Your task to perform on an android device: open app "Google Keep" Image 0: 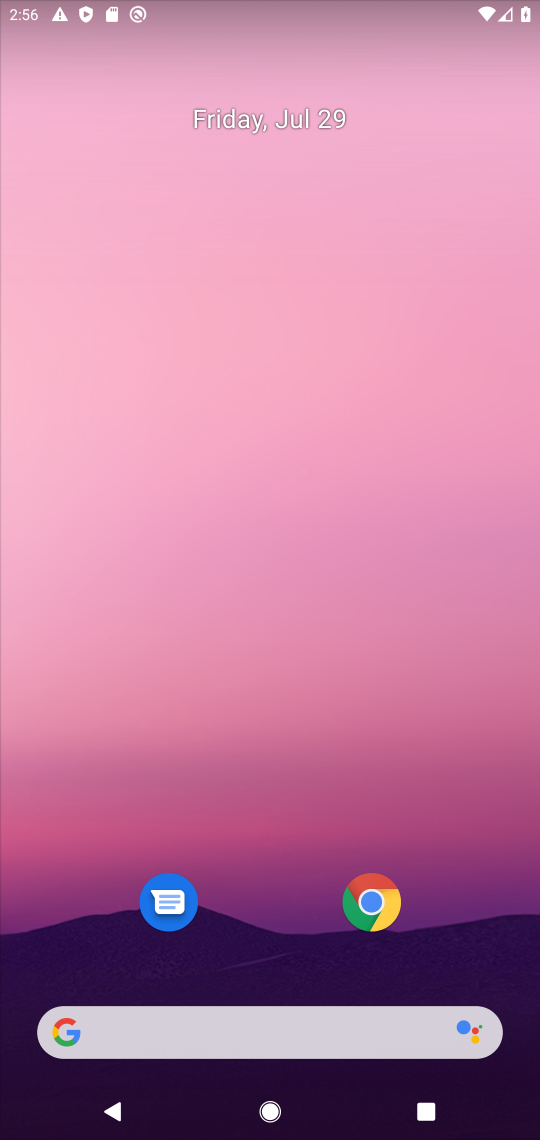
Step 0: drag from (347, 552) to (275, 250)
Your task to perform on an android device: open app "Google Keep" Image 1: 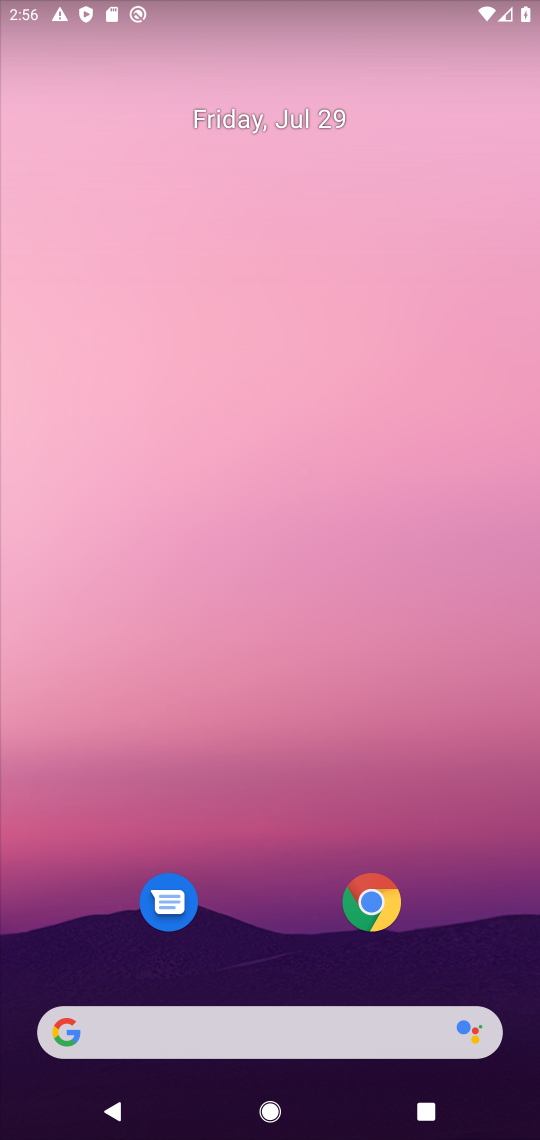
Step 1: drag from (209, 391) to (164, 230)
Your task to perform on an android device: open app "Google Keep" Image 2: 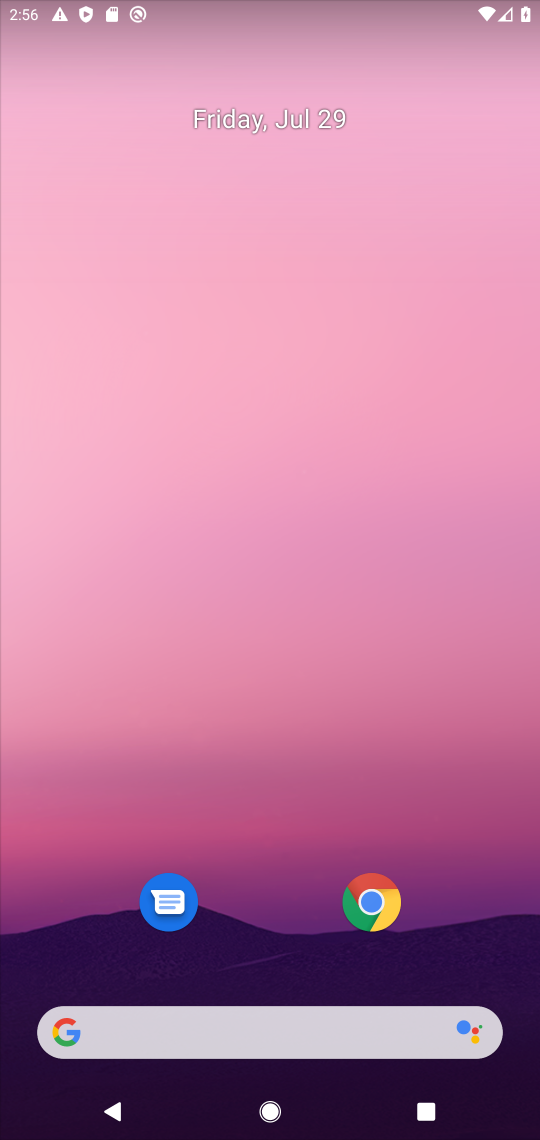
Step 2: drag from (242, 871) to (250, 355)
Your task to perform on an android device: open app "Google Keep" Image 3: 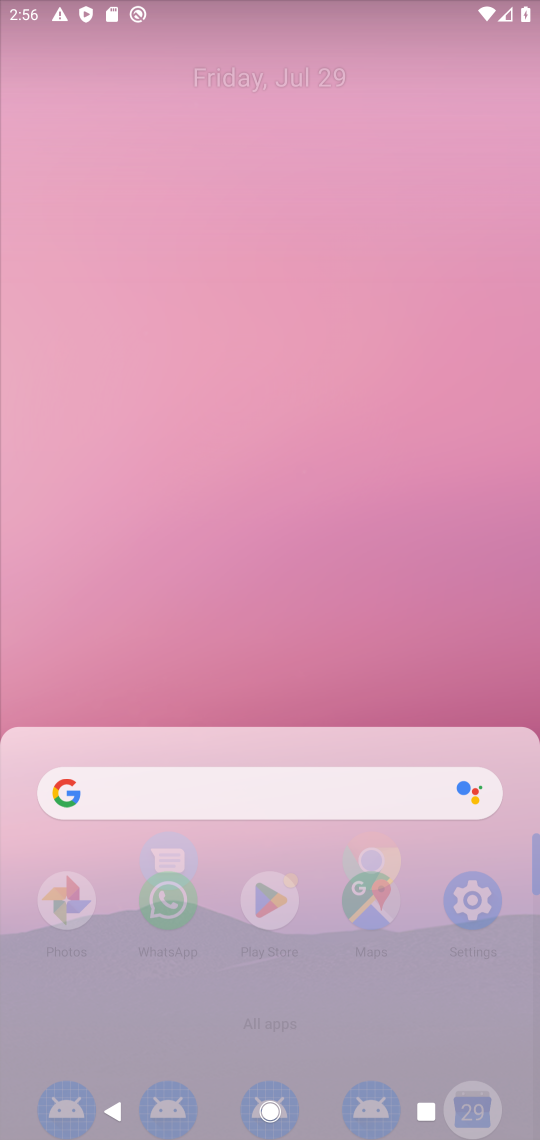
Step 3: drag from (348, 868) to (184, 83)
Your task to perform on an android device: open app "Google Keep" Image 4: 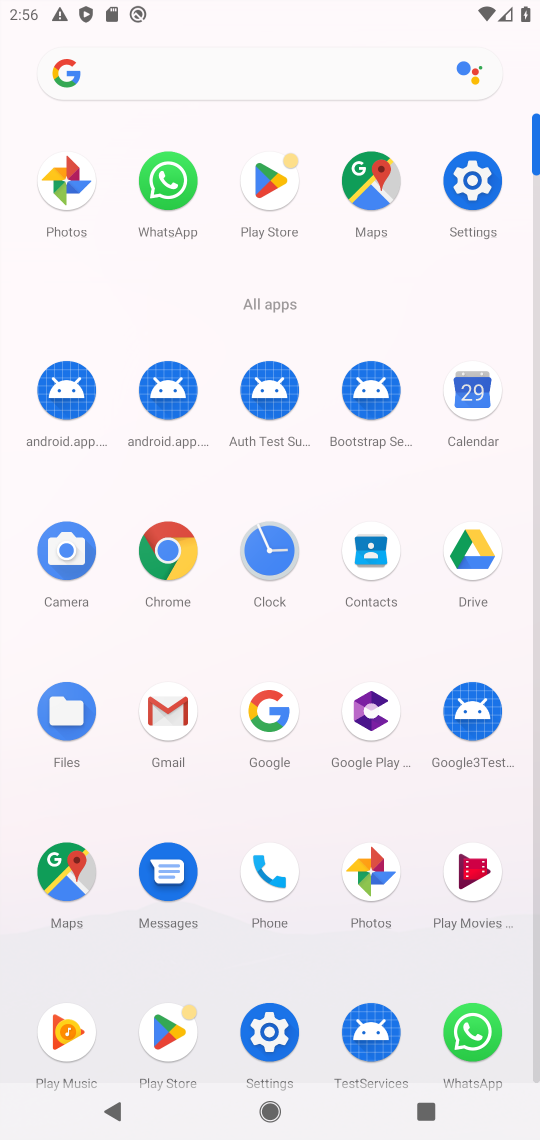
Step 4: drag from (250, 454) to (213, 211)
Your task to perform on an android device: open app "Google Keep" Image 5: 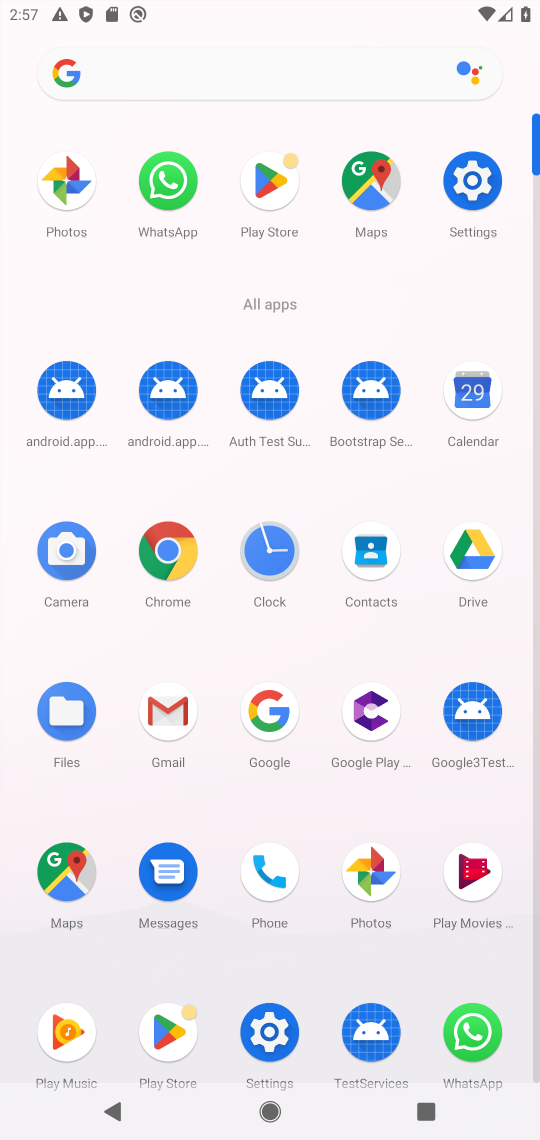
Step 5: click (180, 1018)
Your task to perform on an android device: open app "Google Keep" Image 6: 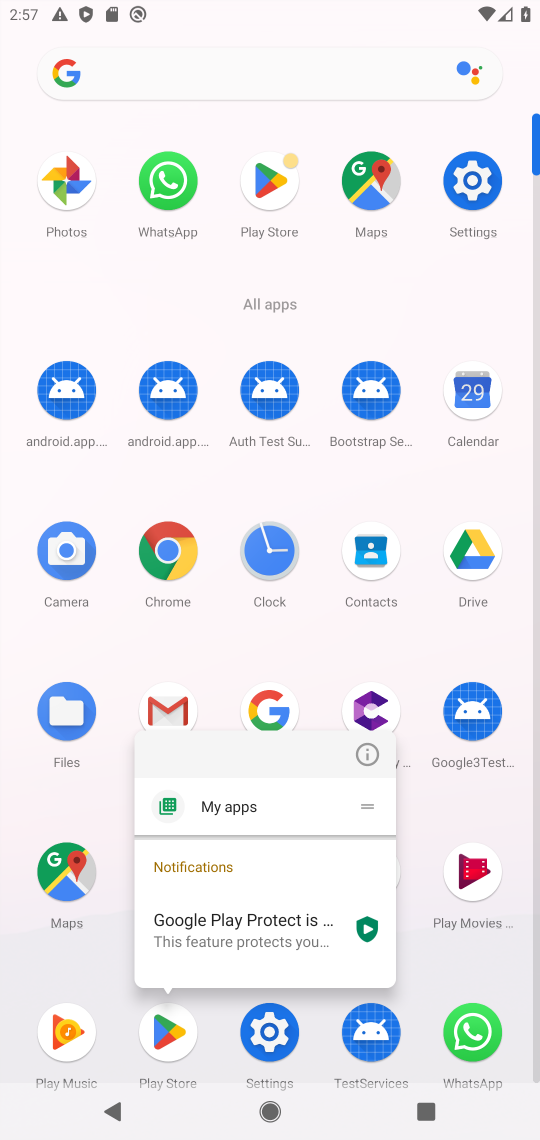
Step 6: click (165, 1047)
Your task to perform on an android device: open app "Google Keep" Image 7: 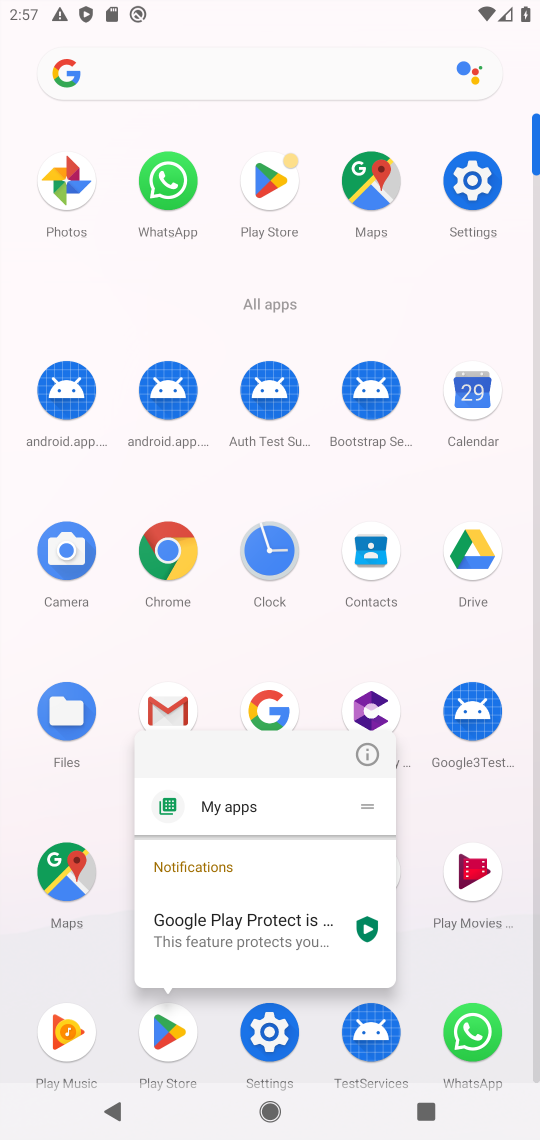
Step 7: click (162, 1047)
Your task to perform on an android device: open app "Google Keep" Image 8: 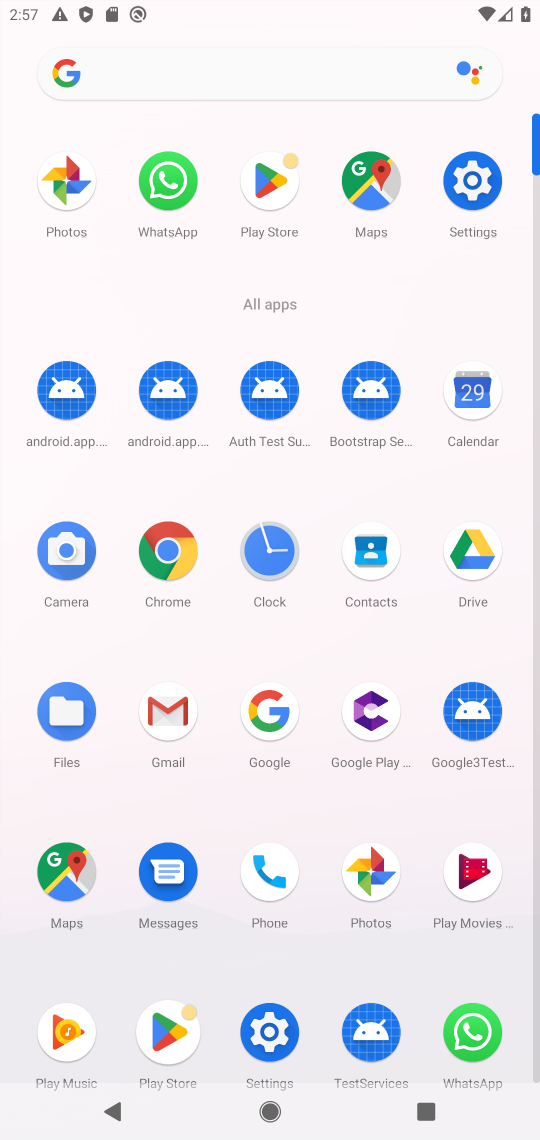
Step 8: click (161, 1044)
Your task to perform on an android device: open app "Google Keep" Image 9: 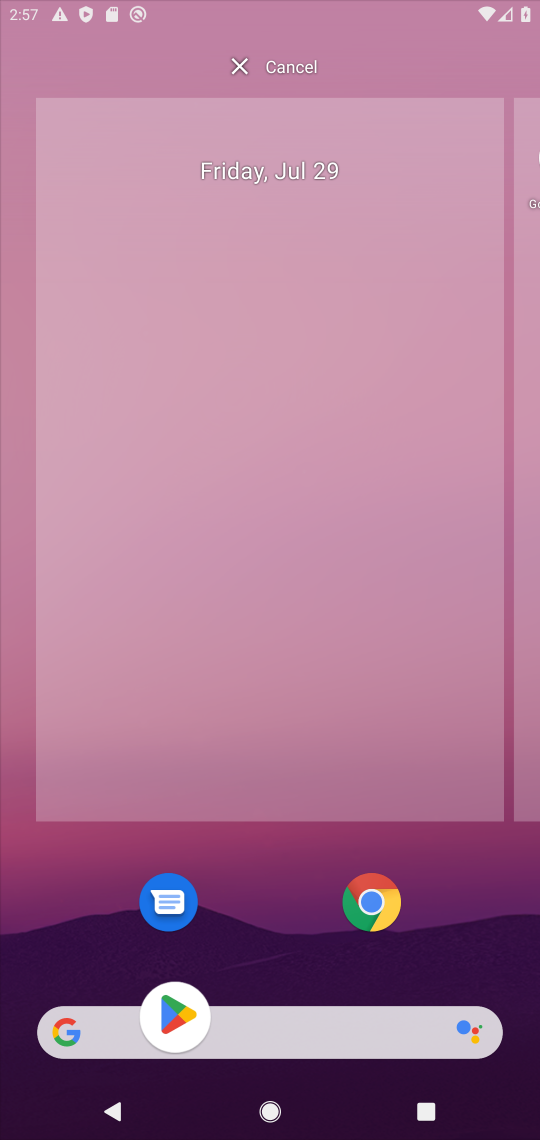
Step 9: click (167, 1030)
Your task to perform on an android device: open app "Google Keep" Image 10: 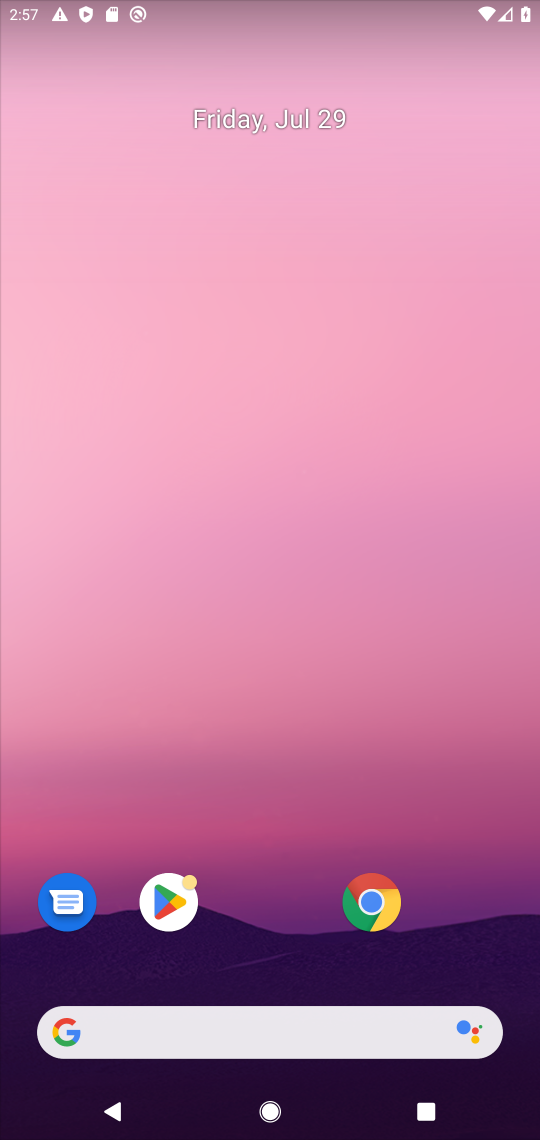
Step 10: drag from (185, 998) to (202, 204)
Your task to perform on an android device: open app "Google Keep" Image 11: 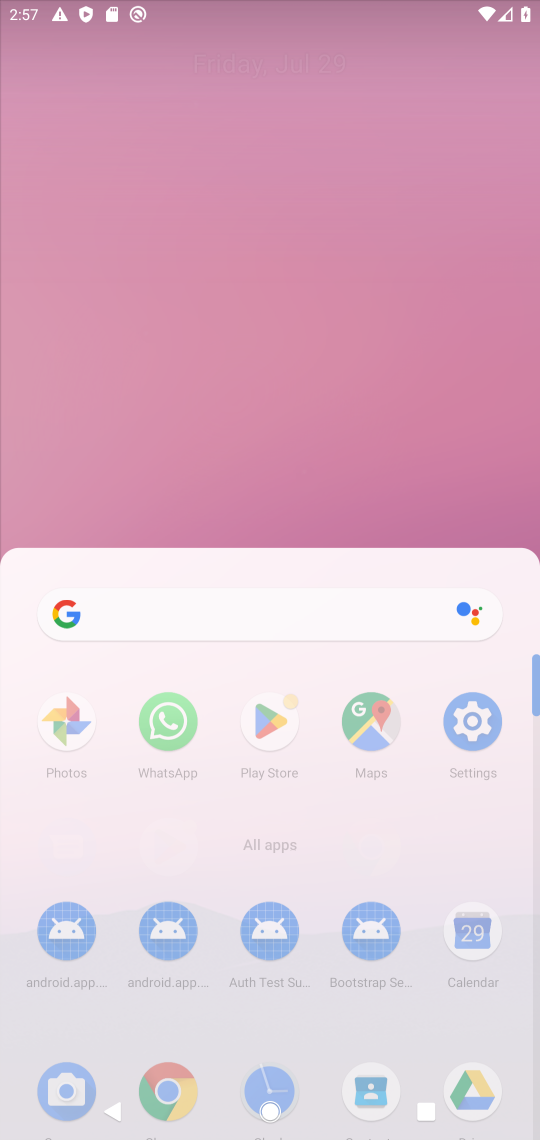
Step 11: drag from (285, 687) to (239, 203)
Your task to perform on an android device: open app "Google Keep" Image 12: 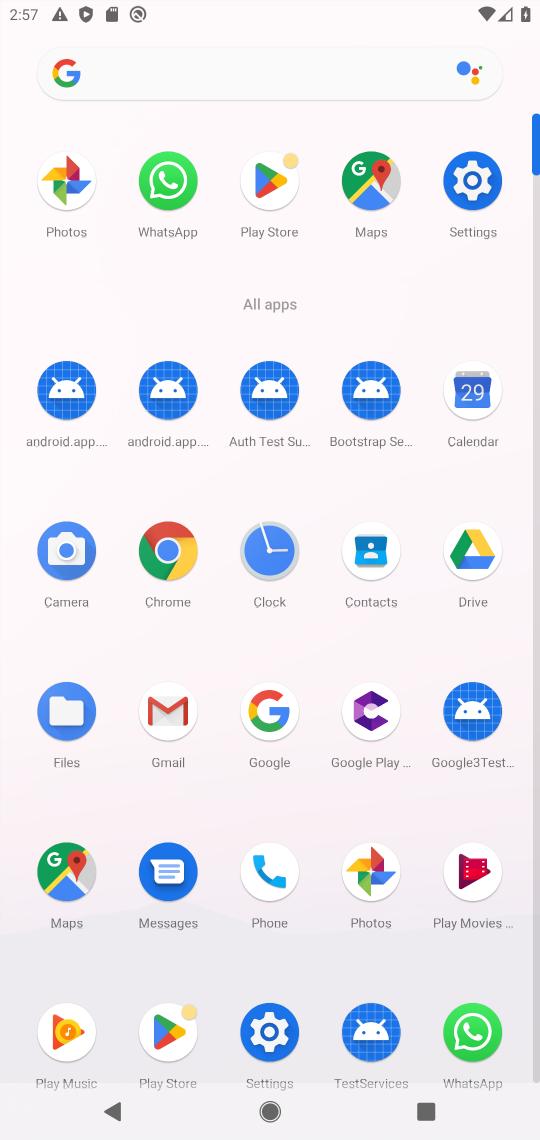
Step 12: drag from (357, 946) to (275, 195)
Your task to perform on an android device: open app "Google Keep" Image 13: 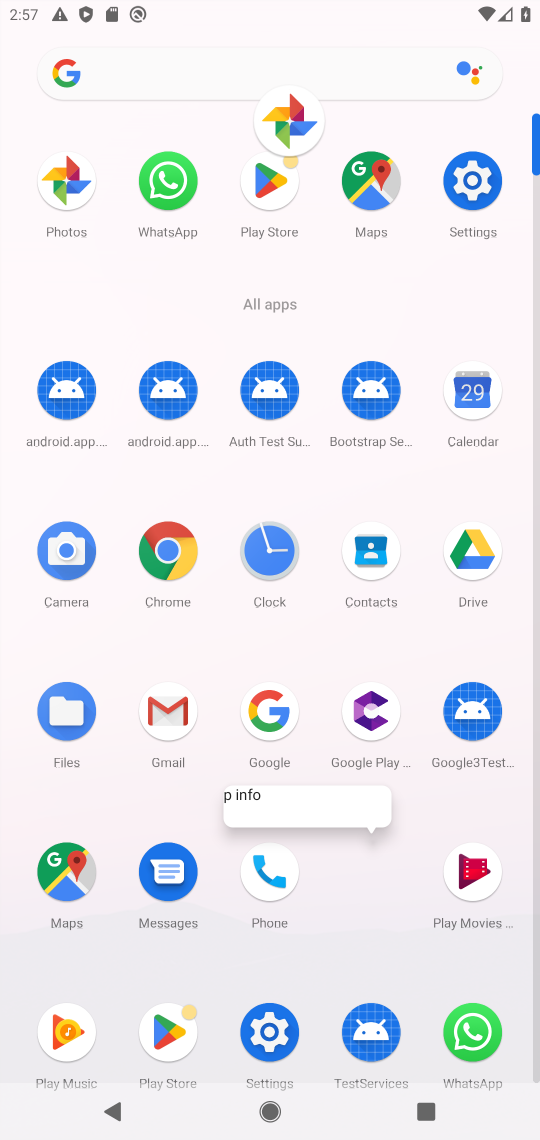
Step 13: click (156, 996)
Your task to perform on an android device: open app "Google Keep" Image 14: 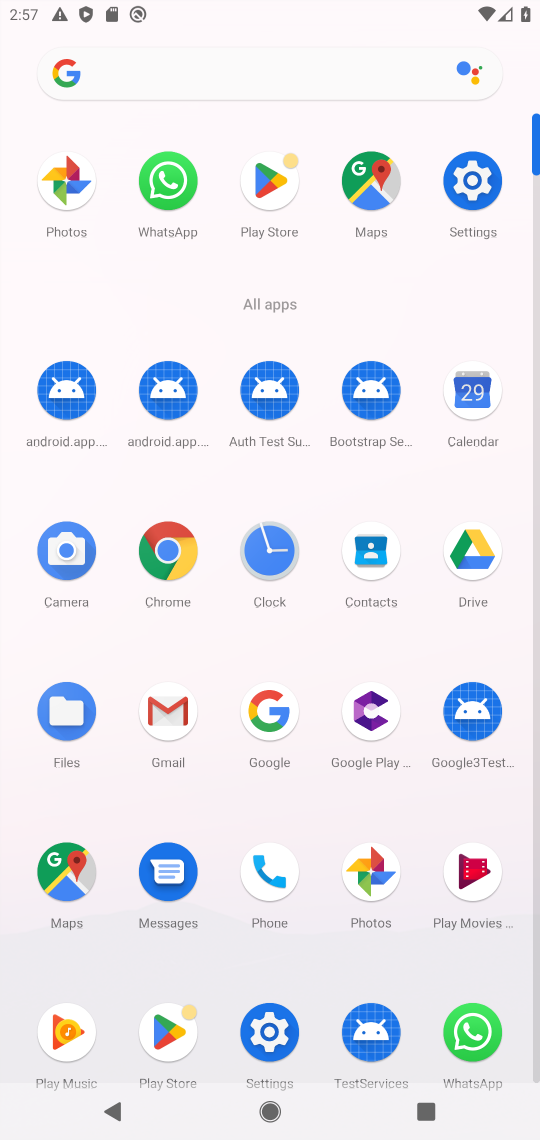
Step 14: click (170, 1038)
Your task to perform on an android device: open app "Google Keep" Image 15: 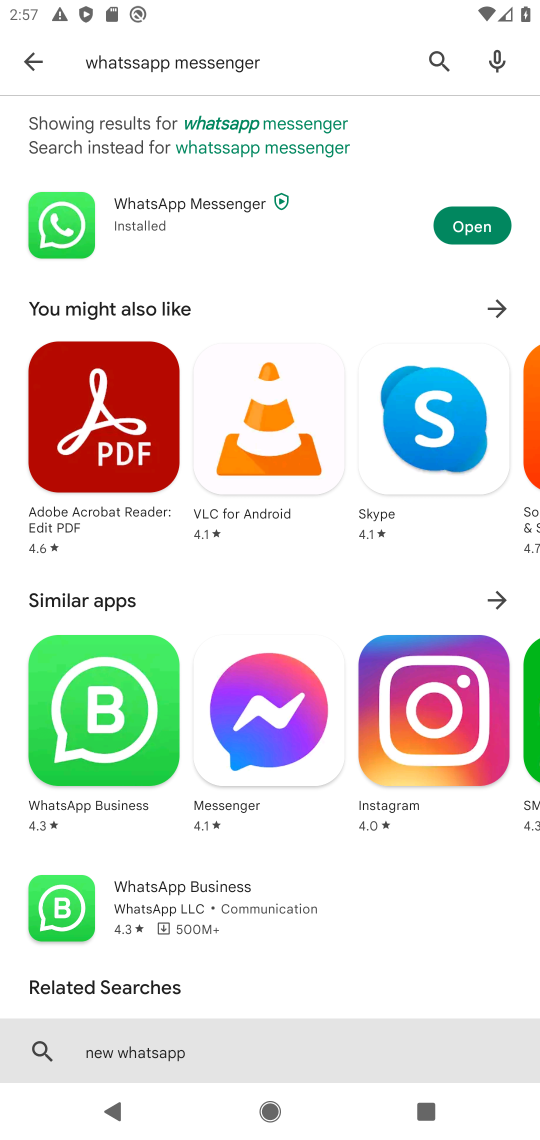
Step 15: click (186, 1010)
Your task to perform on an android device: open app "Google Keep" Image 16: 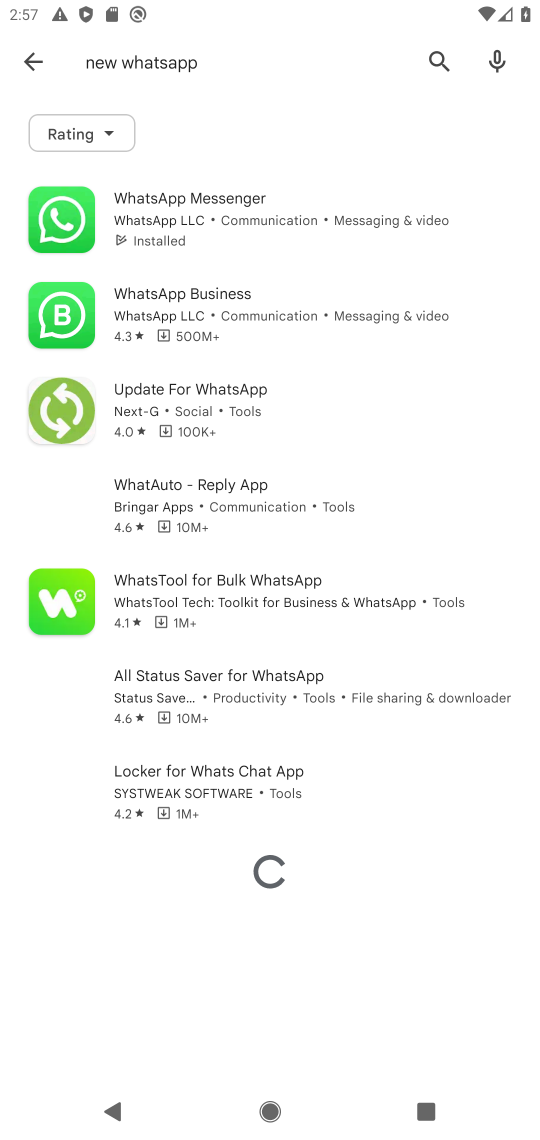
Step 16: click (33, 52)
Your task to perform on an android device: open app "Google Keep" Image 17: 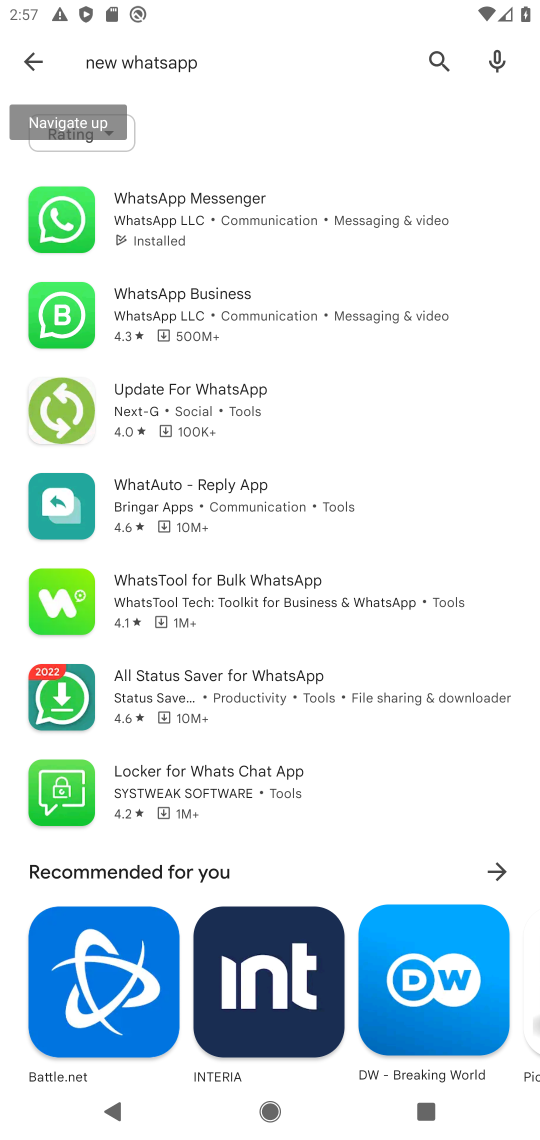
Step 17: click (27, 72)
Your task to perform on an android device: open app "Google Keep" Image 18: 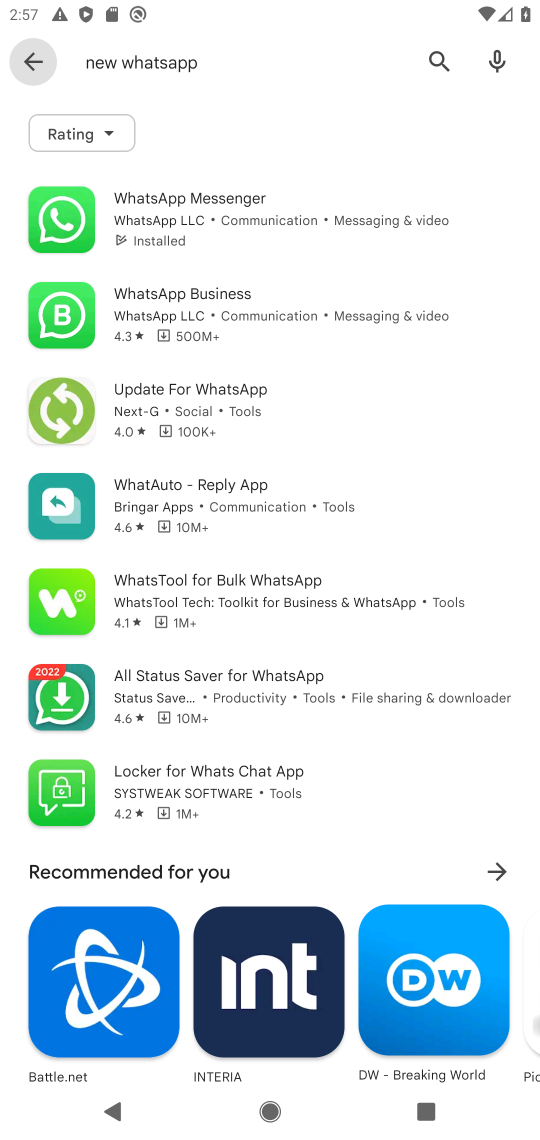
Step 18: click (27, 72)
Your task to perform on an android device: open app "Google Keep" Image 19: 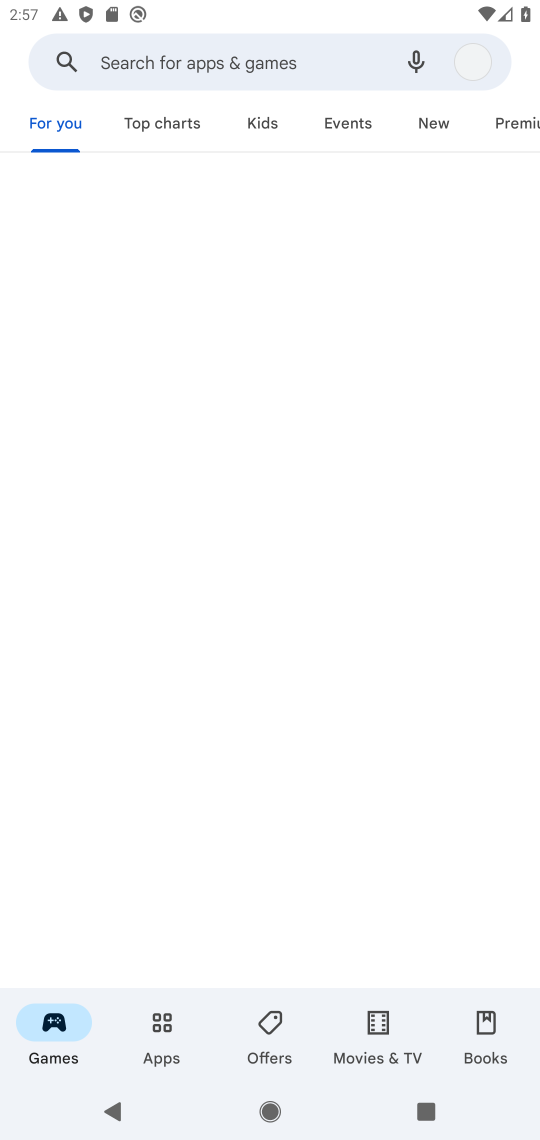
Step 19: click (27, 72)
Your task to perform on an android device: open app "Google Keep" Image 20: 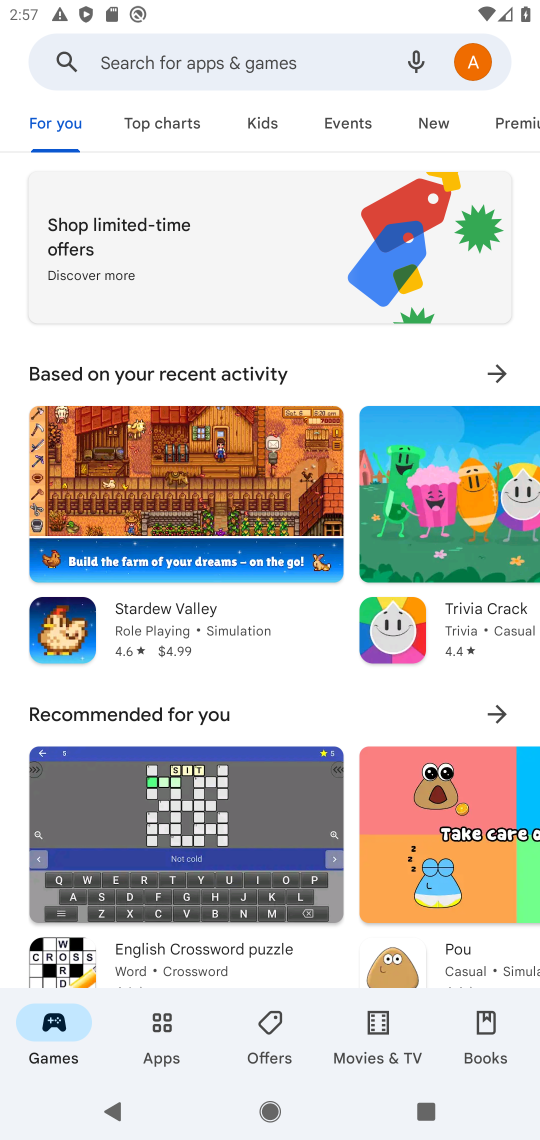
Step 20: click (120, 55)
Your task to perform on an android device: open app "Google Keep" Image 21: 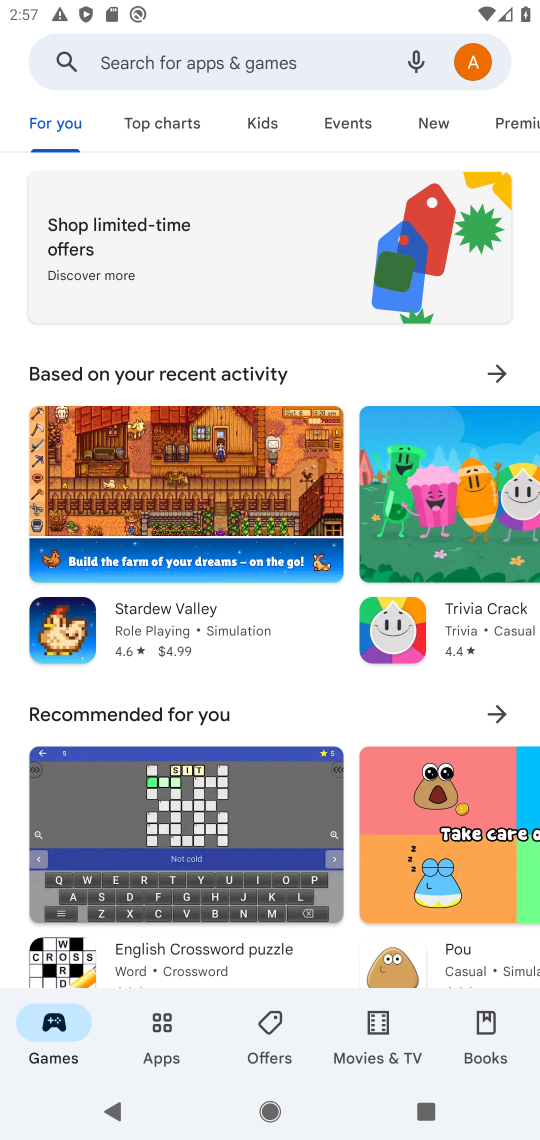
Step 21: click (118, 64)
Your task to perform on an android device: open app "Google Keep" Image 22: 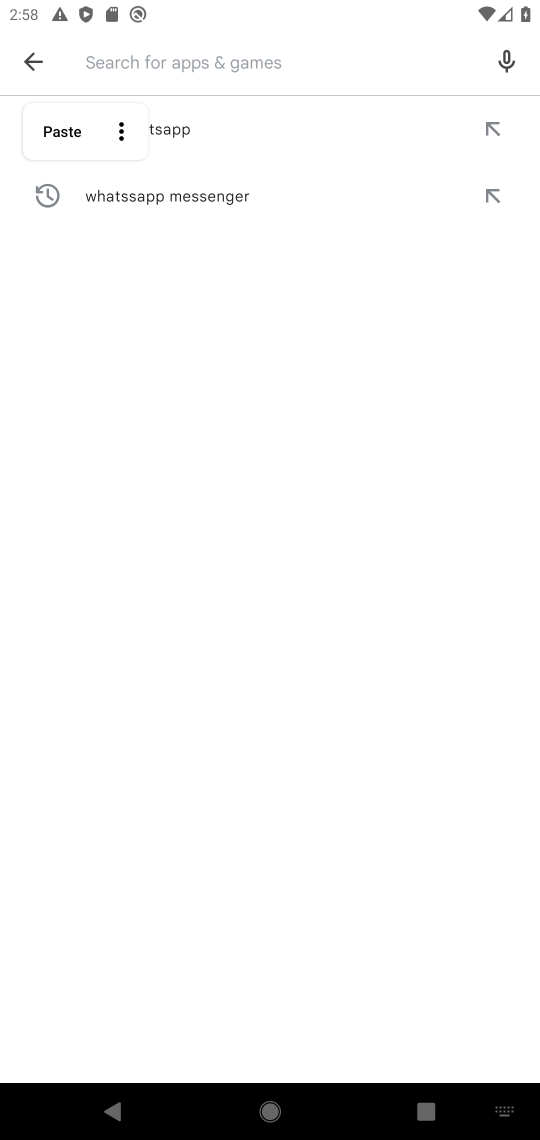
Step 22: type "google app"
Your task to perform on an android device: open app "Google Keep" Image 23: 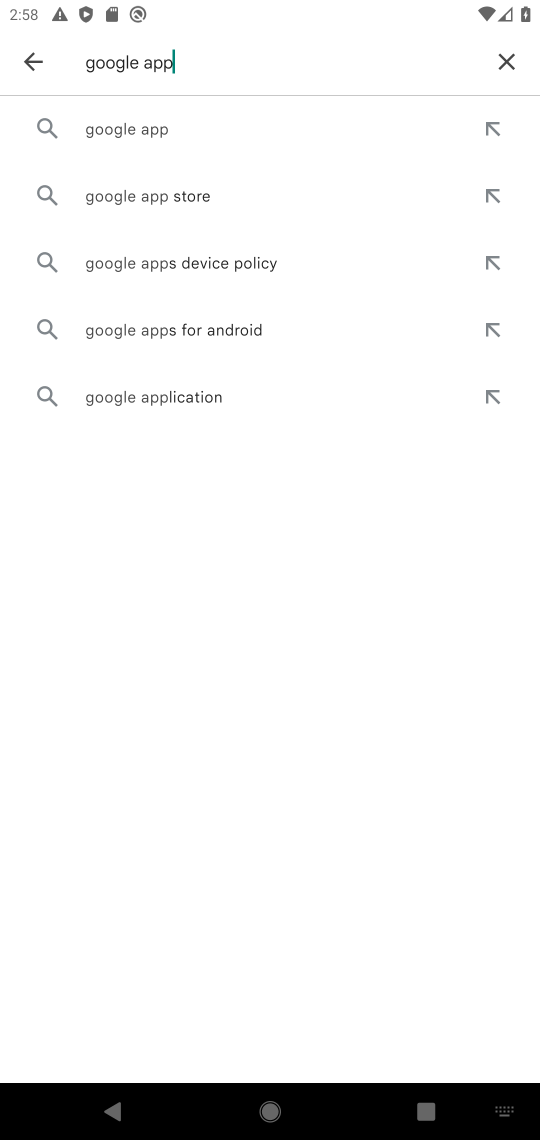
Step 23: type "\"
Your task to perform on an android device: open app "Google Keep" Image 24: 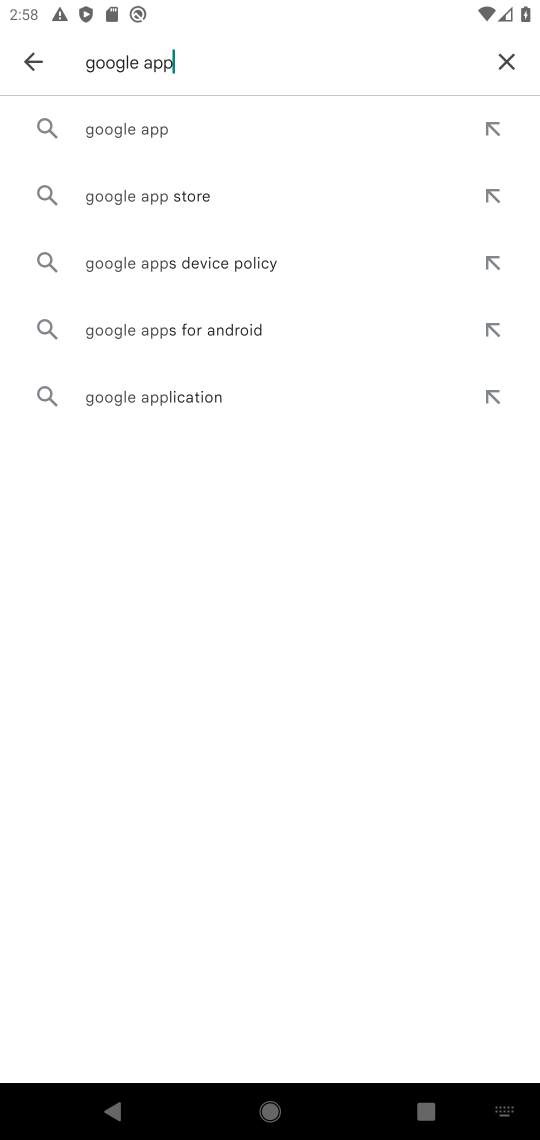
Step 24: click (503, 140)
Your task to perform on an android device: open app "Google Keep" Image 25: 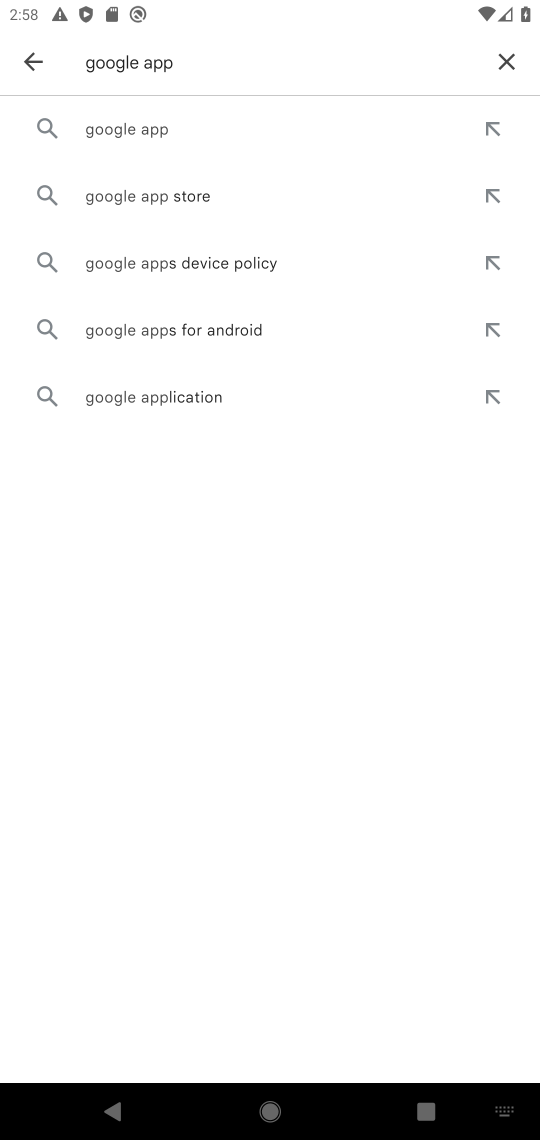
Step 25: click (129, 113)
Your task to perform on an android device: open app "Google Keep" Image 26: 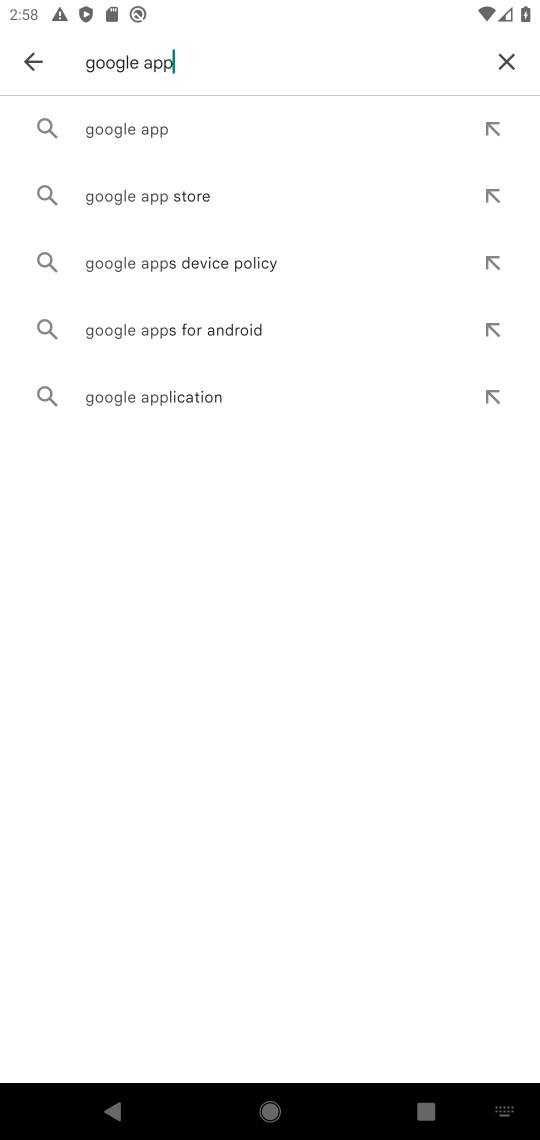
Step 26: click (129, 113)
Your task to perform on an android device: open app "Google Keep" Image 27: 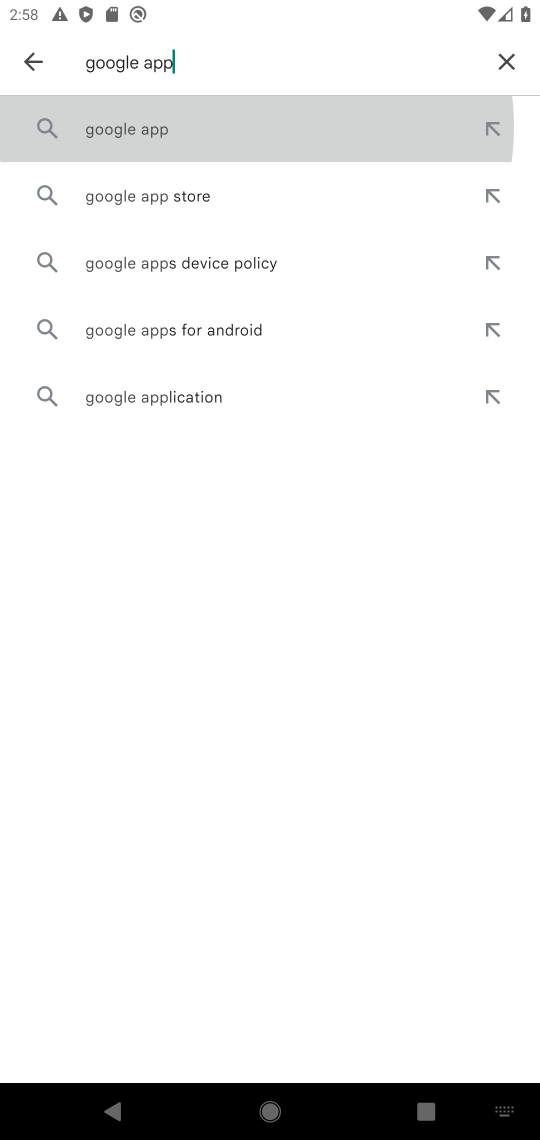
Step 27: click (129, 113)
Your task to perform on an android device: open app "Google Keep" Image 28: 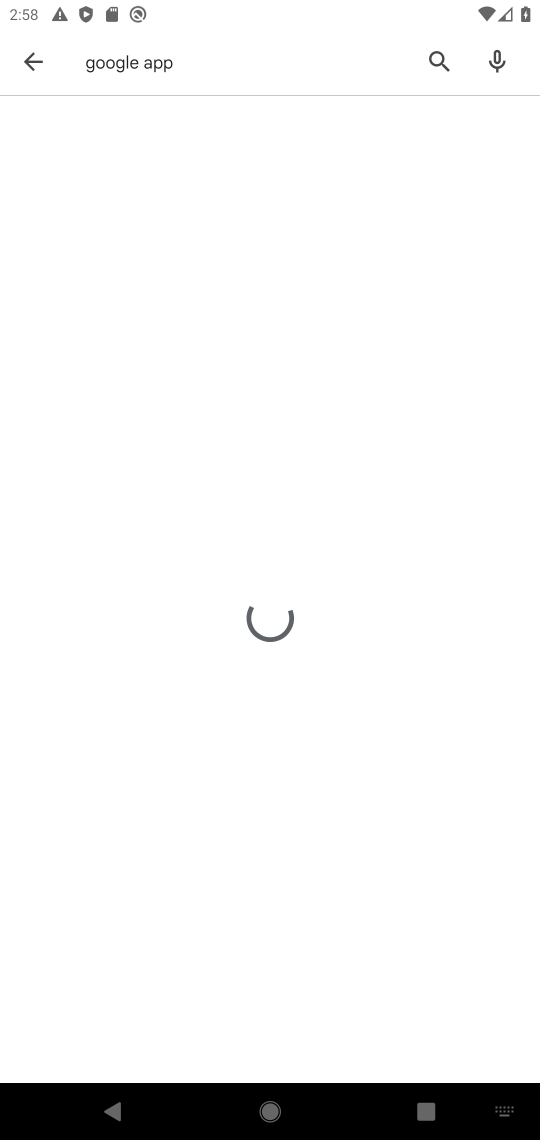
Step 28: click (129, 113)
Your task to perform on an android device: open app "Google Keep" Image 29: 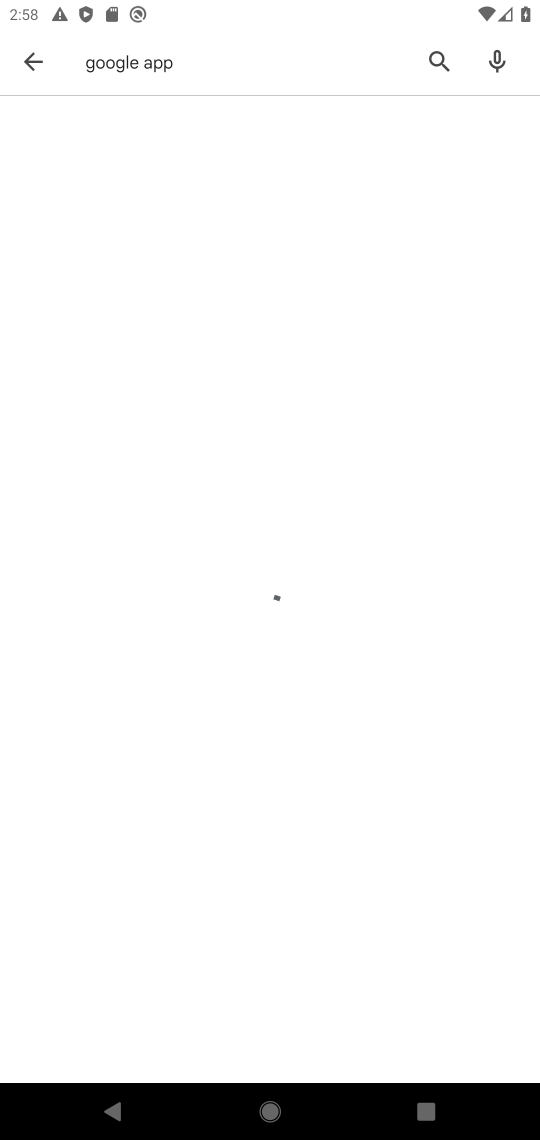
Step 29: click (129, 113)
Your task to perform on an android device: open app "Google Keep" Image 30: 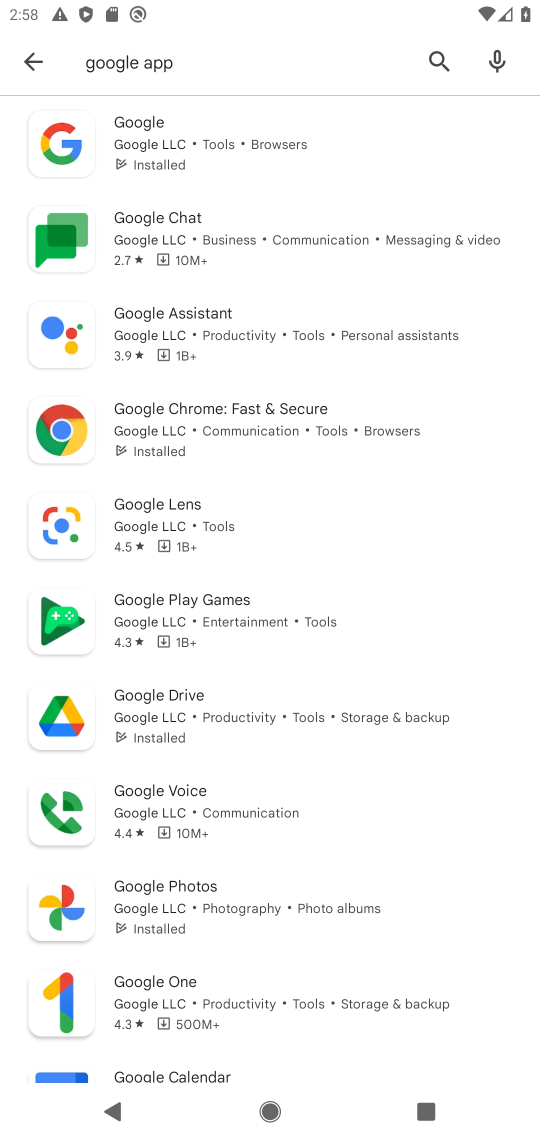
Step 30: click (147, 136)
Your task to perform on an android device: open app "Google Keep" Image 31: 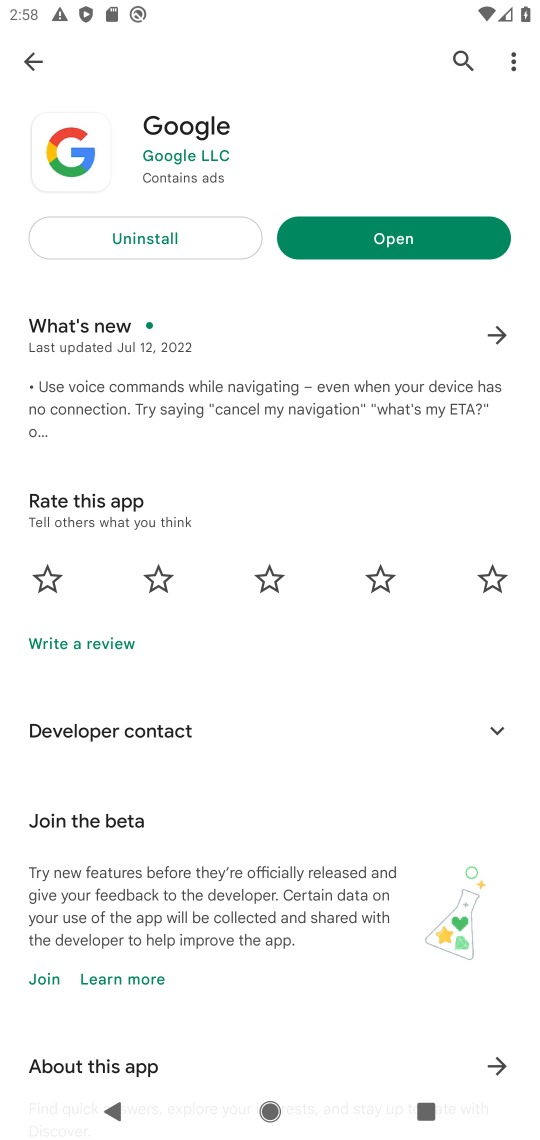
Step 31: task complete